Your task to perform on an android device: Check the news Image 0: 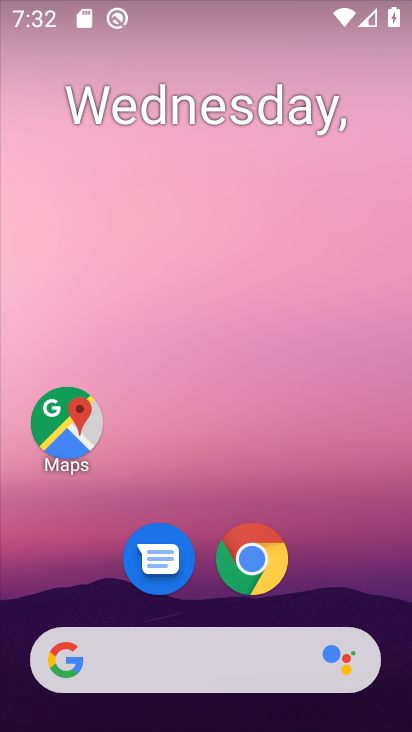
Step 0: drag from (378, 572) to (379, 125)
Your task to perform on an android device: Check the news Image 1: 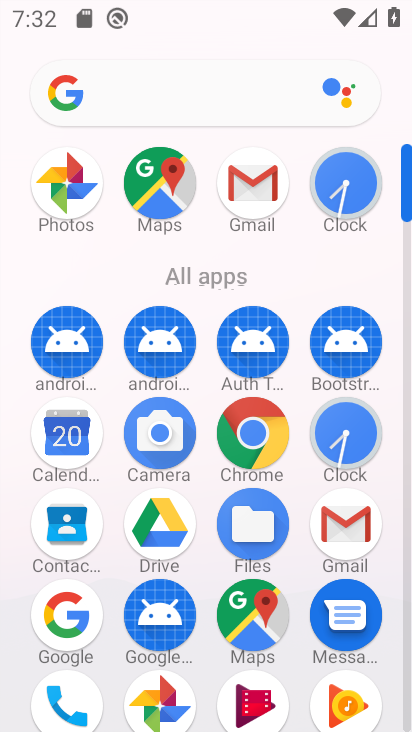
Step 1: drag from (382, 478) to (394, 226)
Your task to perform on an android device: Check the news Image 2: 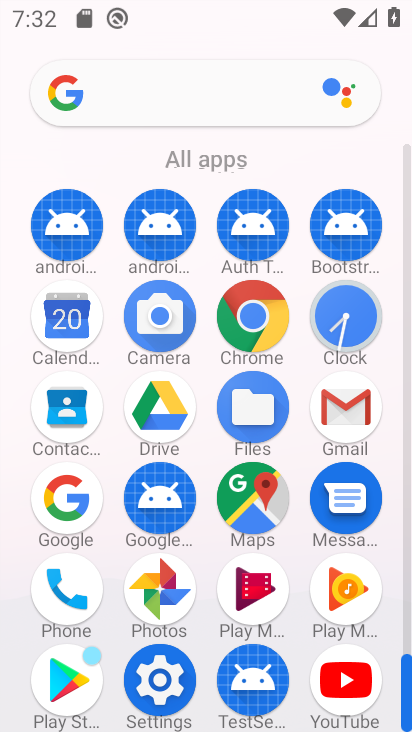
Step 2: drag from (382, 533) to (400, 280)
Your task to perform on an android device: Check the news Image 3: 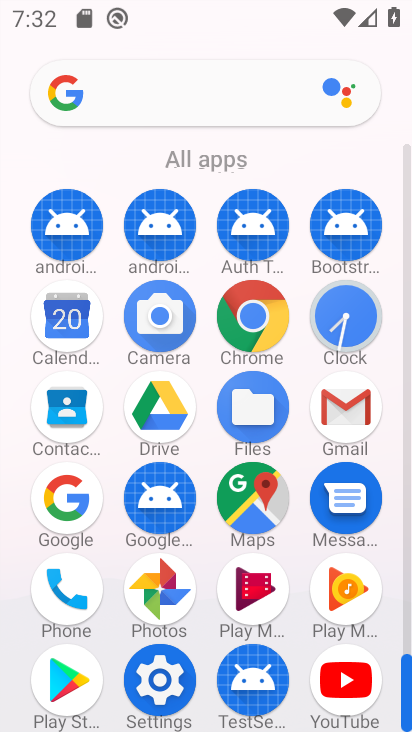
Step 3: click (260, 337)
Your task to perform on an android device: Check the news Image 4: 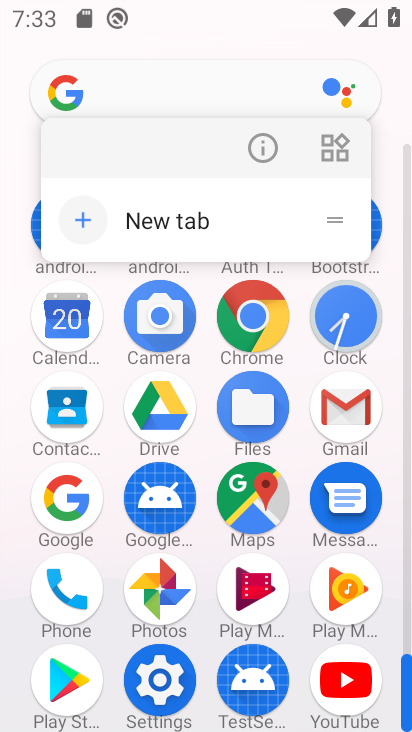
Step 4: click (272, 337)
Your task to perform on an android device: Check the news Image 5: 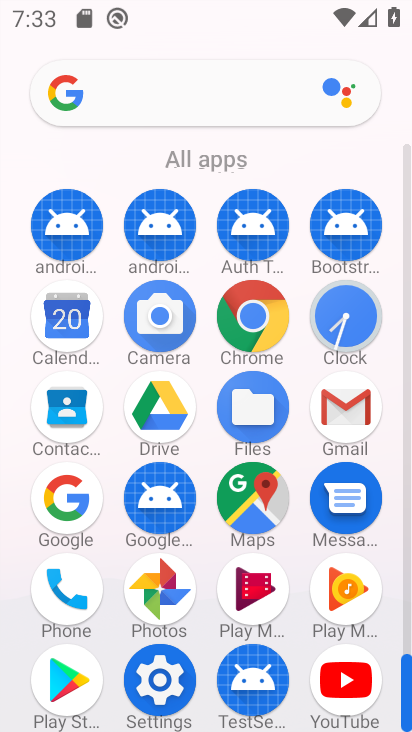
Step 5: click (269, 335)
Your task to perform on an android device: Check the news Image 6: 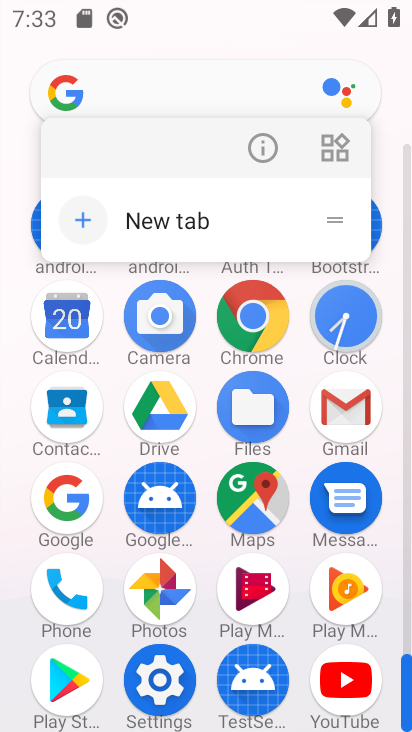
Step 6: click (268, 328)
Your task to perform on an android device: Check the news Image 7: 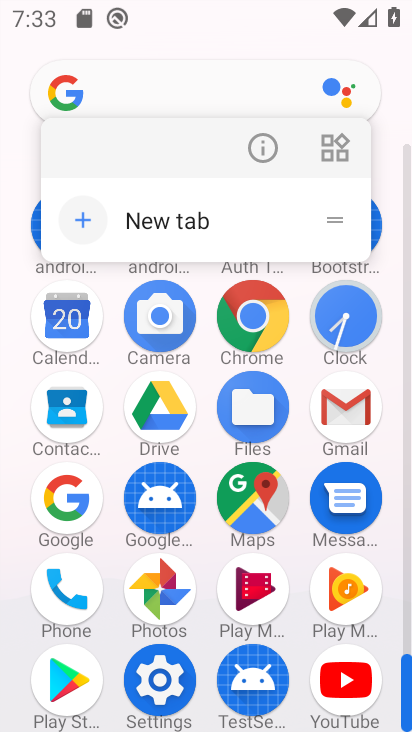
Step 7: click (268, 328)
Your task to perform on an android device: Check the news Image 8: 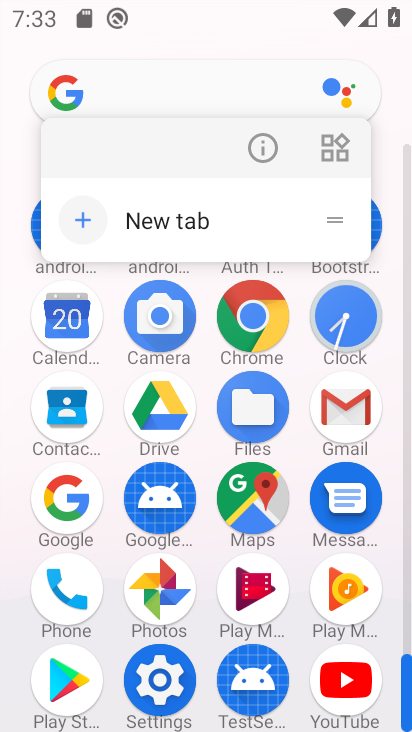
Step 8: click (259, 309)
Your task to perform on an android device: Check the news Image 9: 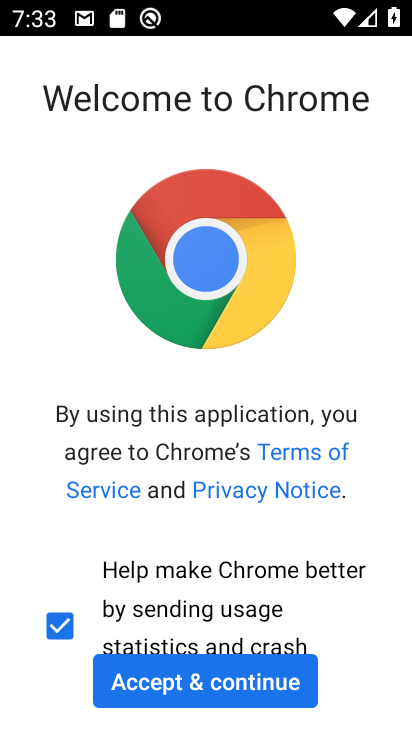
Step 9: click (267, 690)
Your task to perform on an android device: Check the news Image 10: 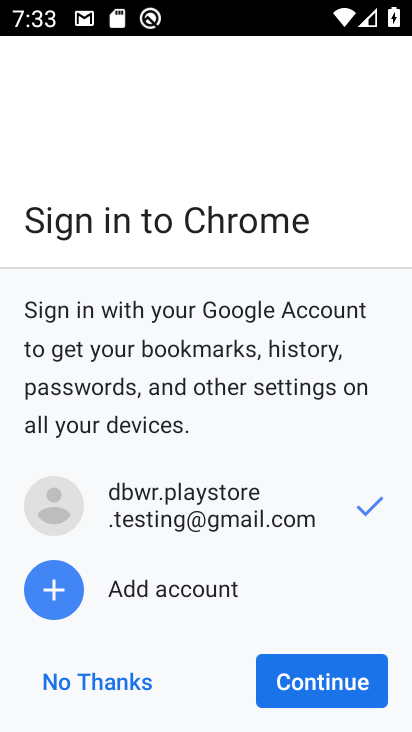
Step 10: click (287, 698)
Your task to perform on an android device: Check the news Image 11: 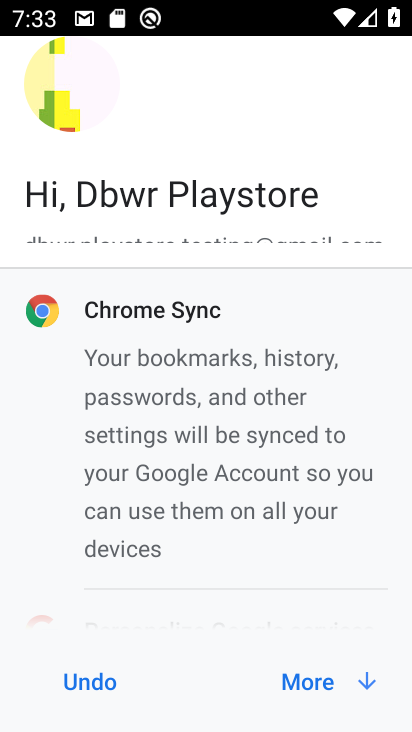
Step 11: click (312, 672)
Your task to perform on an android device: Check the news Image 12: 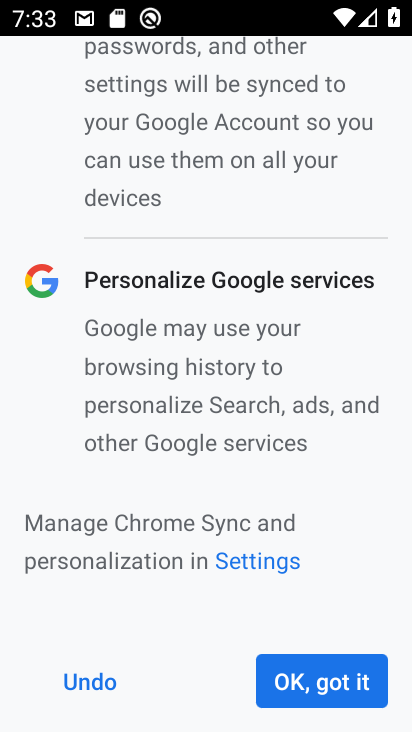
Step 12: click (314, 674)
Your task to perform on an android device: Check the news Image 13: 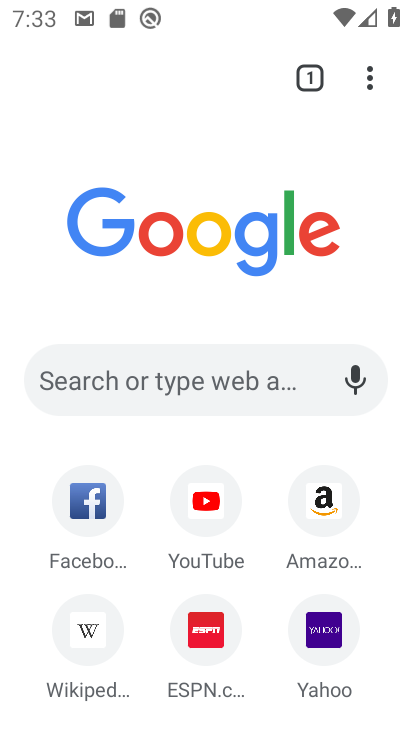
Step 13: click (216, 386)
Your task to perform on an android device: Check the news Image 14: 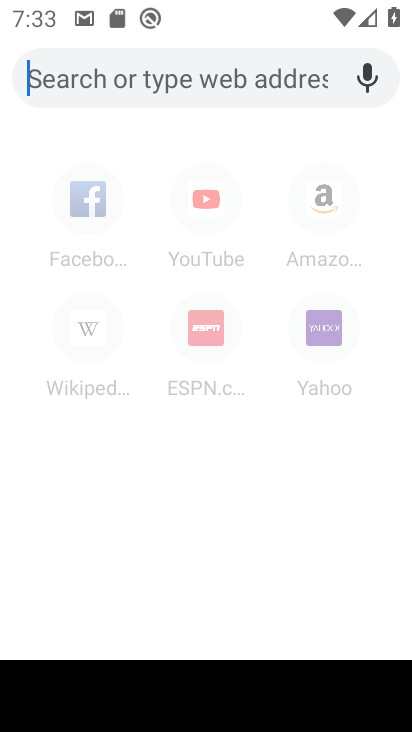
Step 14: type "news"
Your task to perform on an android device: Check the news Image 15: 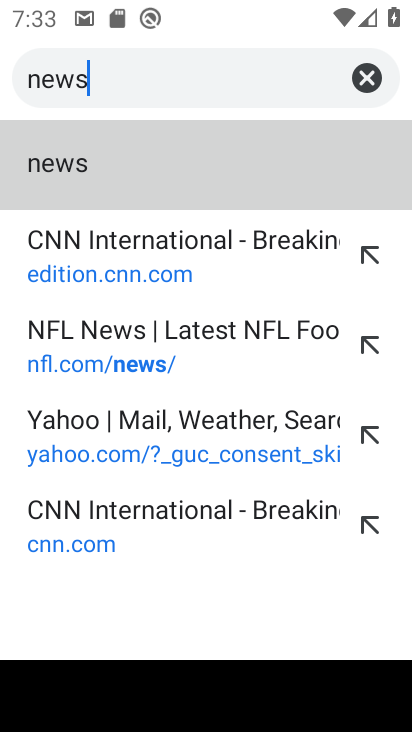
Step 15: click (33, 169)
Your task to perform on an android device: Check the news Image 16: 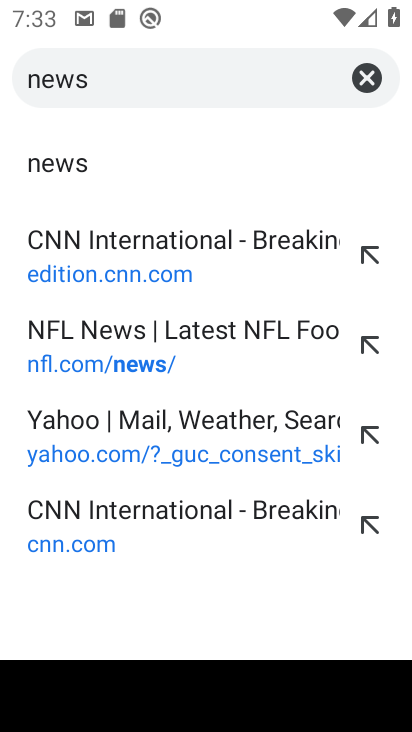
Step 16: click (75, 167)
Your task to perform on an android device: Check the news Image 17: 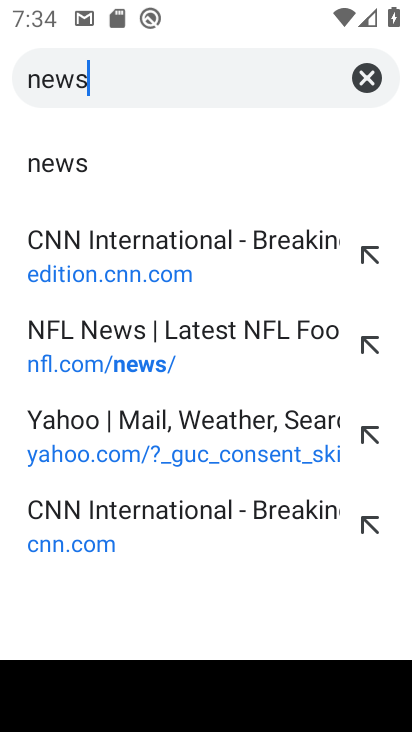
Step 17: click (72, 167)
Your task to perform on an android device: Check the news Image 18: 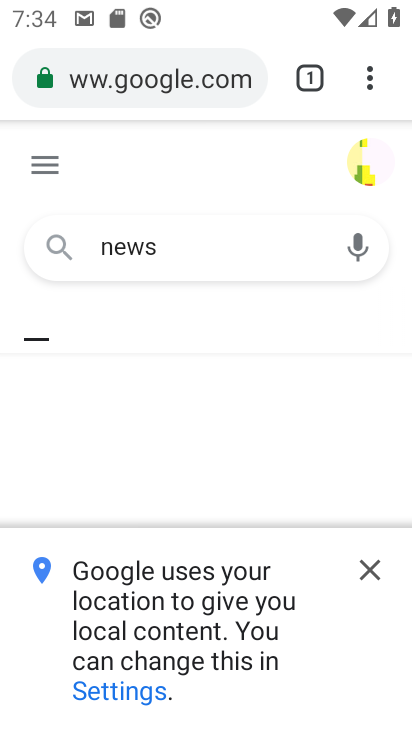
Step 18: click (367, 571)
Your task to perform on an android device: Check the news Image 19: 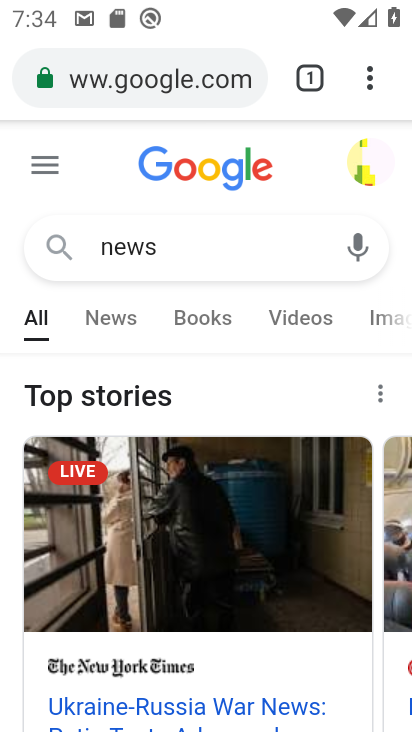
Step 19: task complete